Your task to perform on an android device: turn pop-ups on in chrome Image 0: 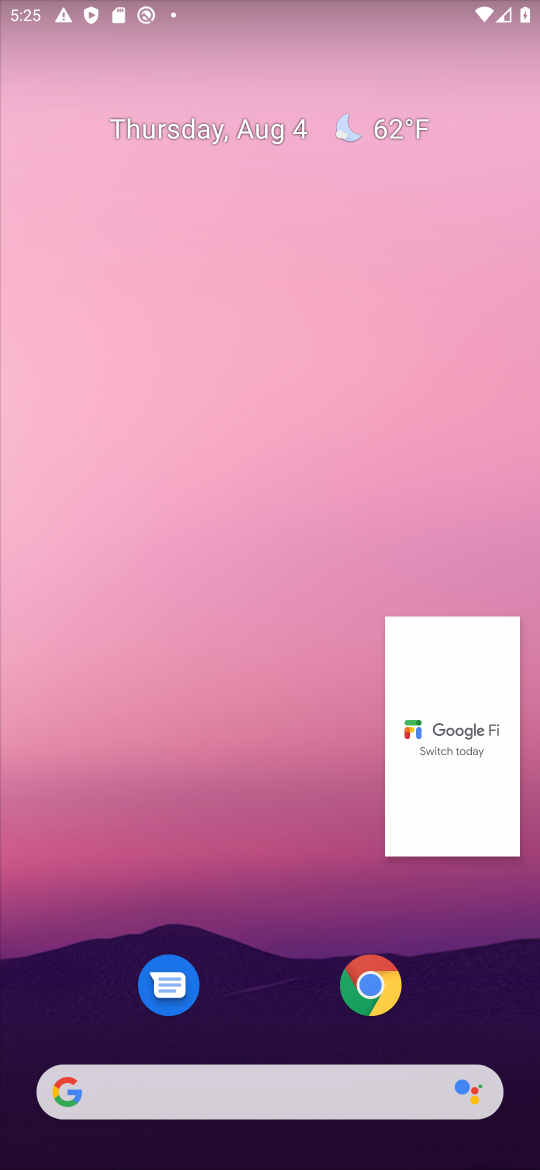
Step 0: drag from (466, 715) to (279, 1157)
Your task to perform on an android device: turn pop-ups on in chrome Image 1: 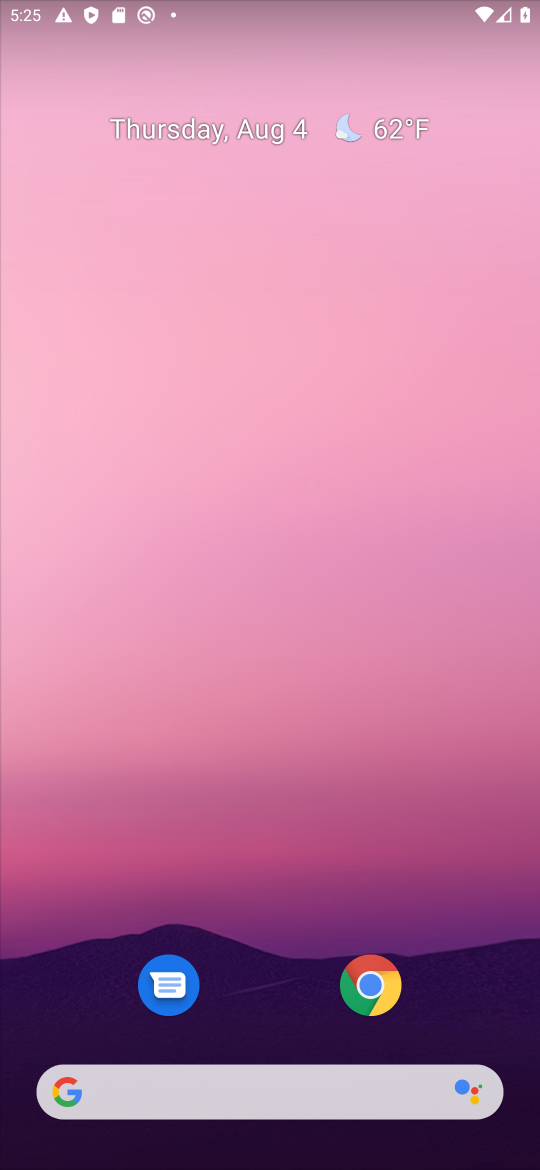
Step 1: drag from (300, 1117) to (394, 0)
Your task to perform on an android device: turn pop-ups on in chrome Image 2: 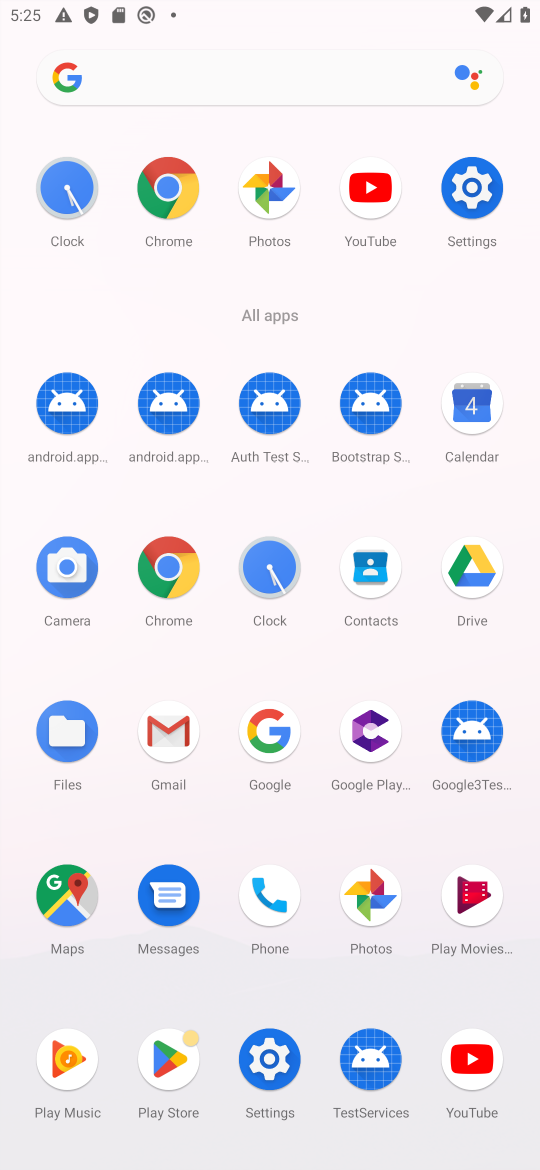
Step 2: click (180, 180)
Your task to perform on an android device: turn pop-ups on in chrome Image 3: 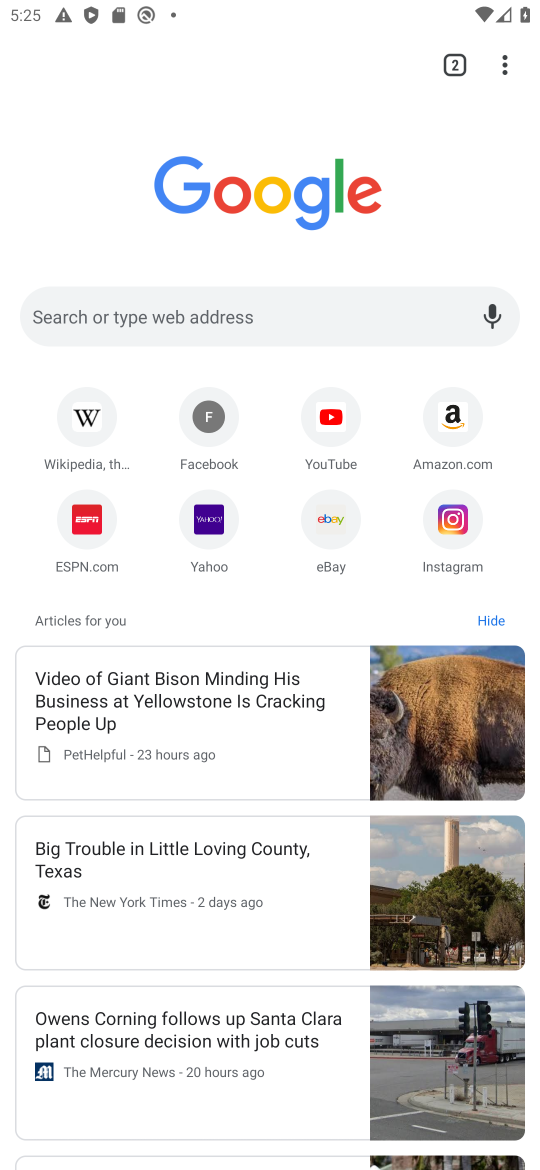
Step 3: drag from (496, 66) to (303, 616)
Your task to perform on an android device: turn pop-ups on in chrome Image 4: 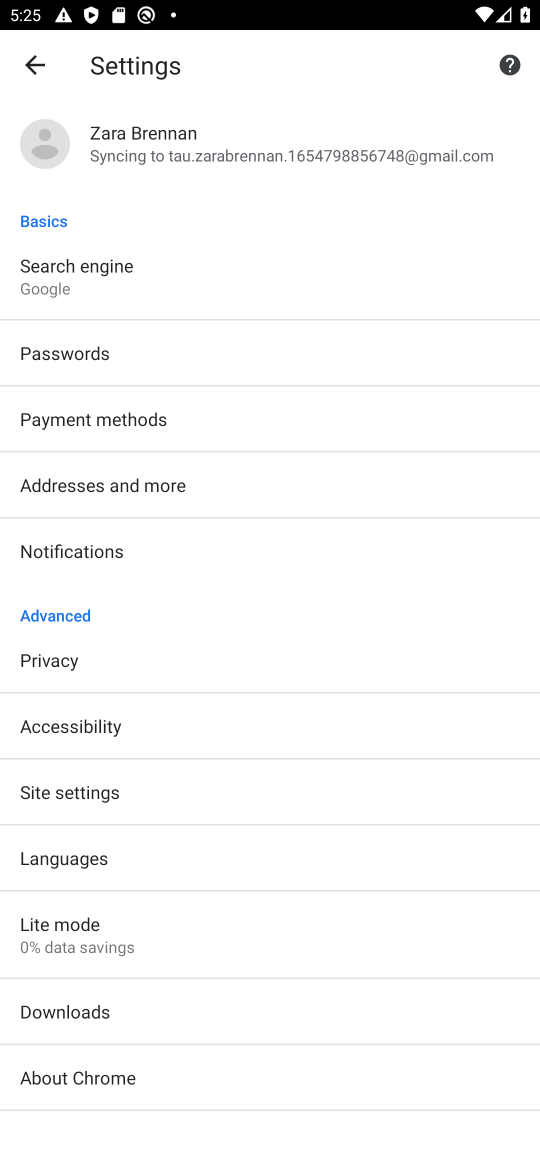
Step 4: click (115, 794)
Your task to perform on an android device: turn pop-ups on in chrome Image 5: 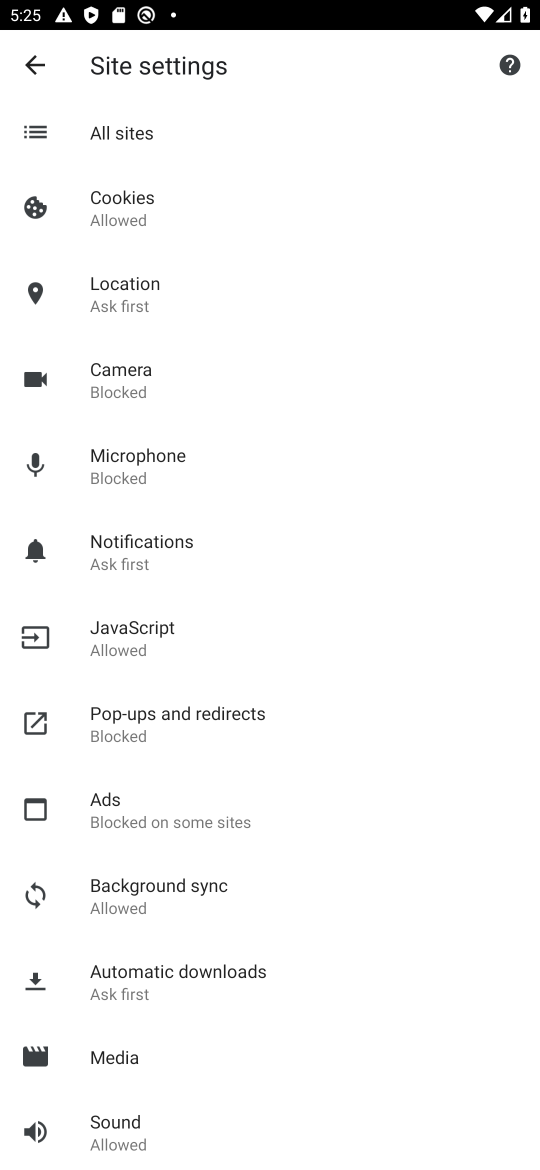
Step 5: click (172, 705)
Your task to perform on an android device: turn pop-ups on in chrome Image 6: 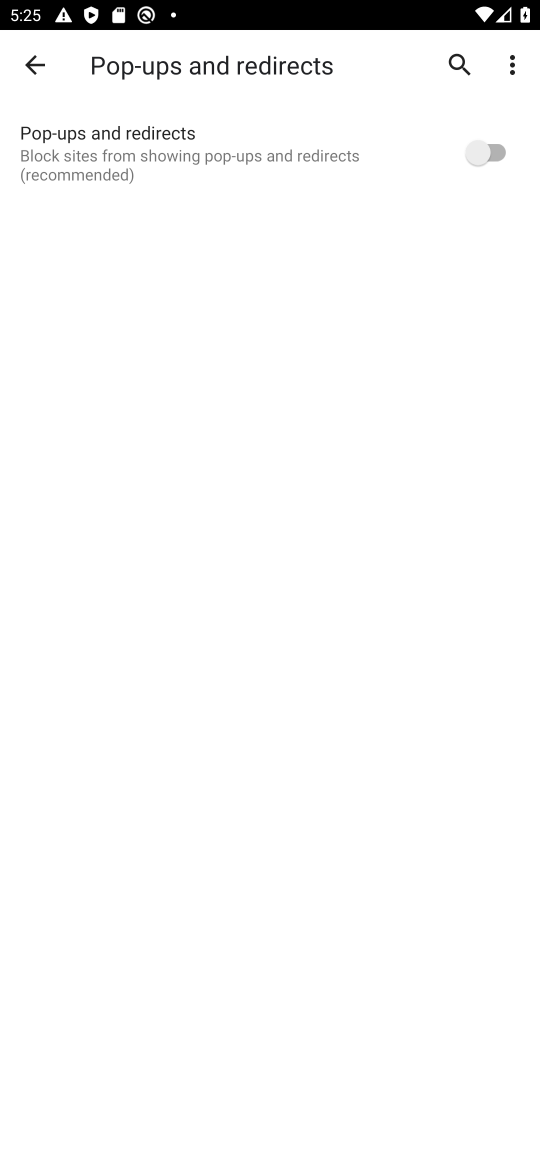
Step 6: click (486, 149)
Your task to perform on an android device: turn pop-ups on in chrome Image 7: 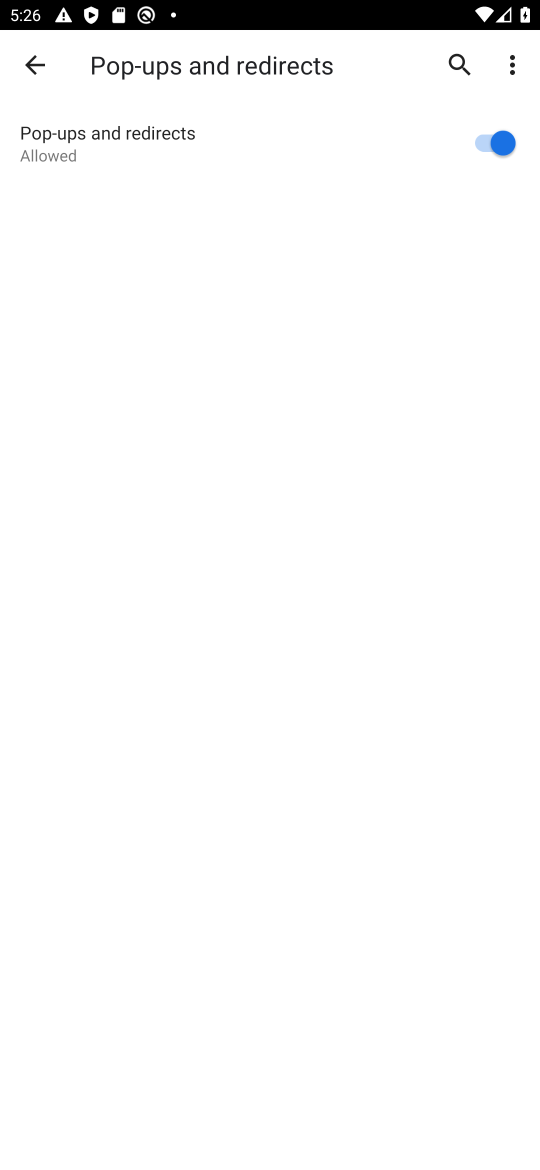
Step 7: task complete